Your task to perform on an android device: remove spam from my inbox in the gmail app Image 0: 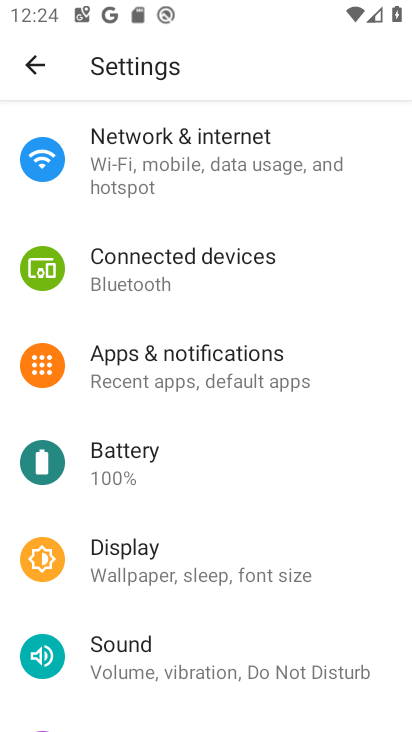
Step 0: press home button
Your task to perform on an android device: remove spam from my inbox in the gmail app Image 1: 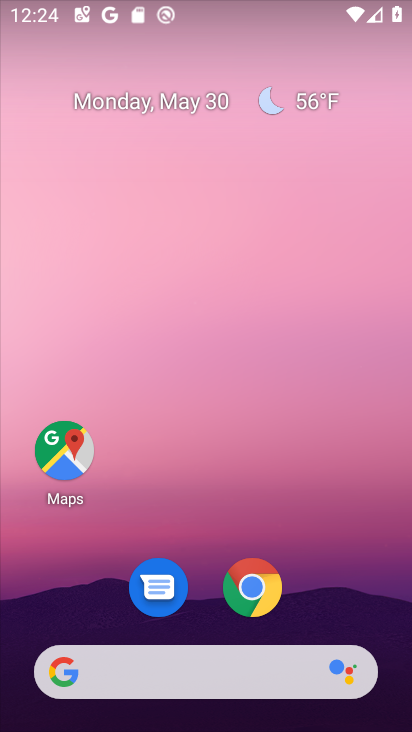
Step 1: drag from (384, 616) to (283, 61)
Your task to perform on an android device: remove spam from my inbox in the gmail app Image 2: 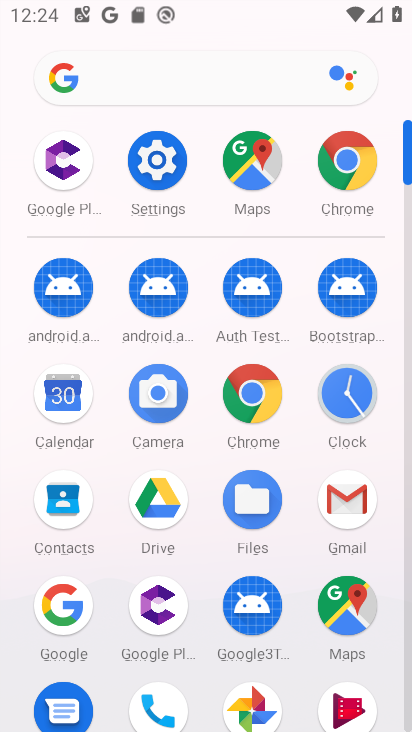
Step 2: click (344, 517)
Your task to perform on an android device: remove spam from my inbox in the gmail app Image 3: 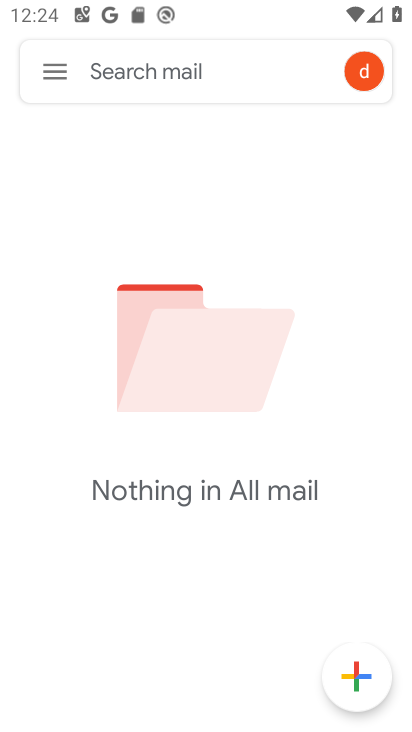
Step 3: click (56, 70)
Your task to perform on an android device: remove spam from my inbox in the gmail app Image 4: 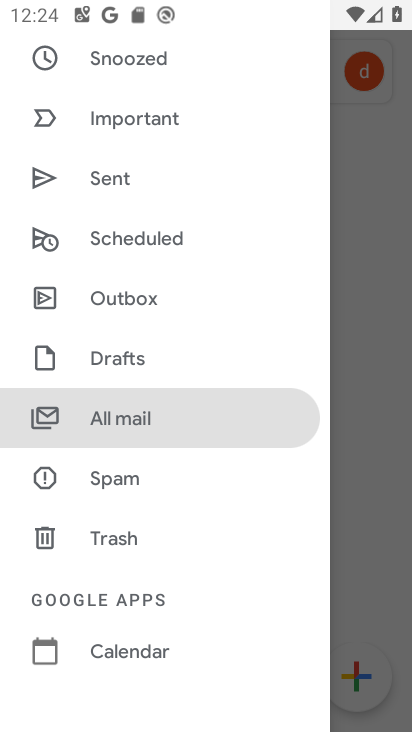
Step 4: click (146, 474)
Your task to perform on an android device: remove spam from my inbox in the gmail app Image 5: 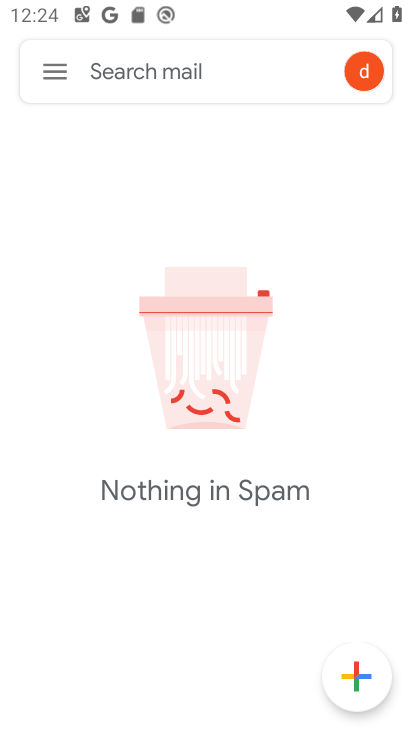
Step 5: task complete